Your task to perform on an android device: choose inbox layout in the gmail app Image 0: 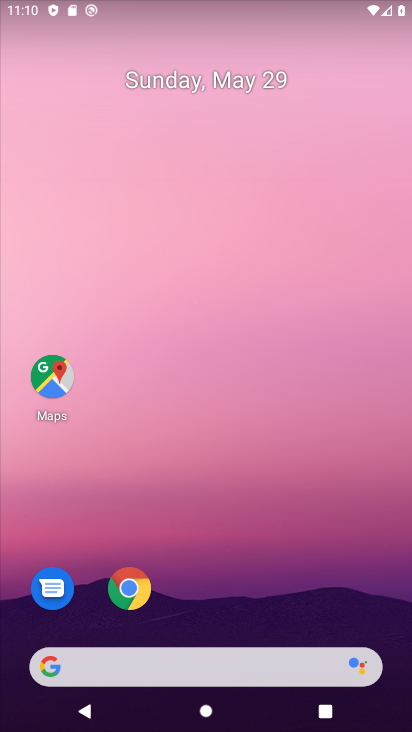
Step 0: drag from (311, 579) to (282, 70)
Your task to perform on an android device: choose inbox layout in the gmail app Image 1: 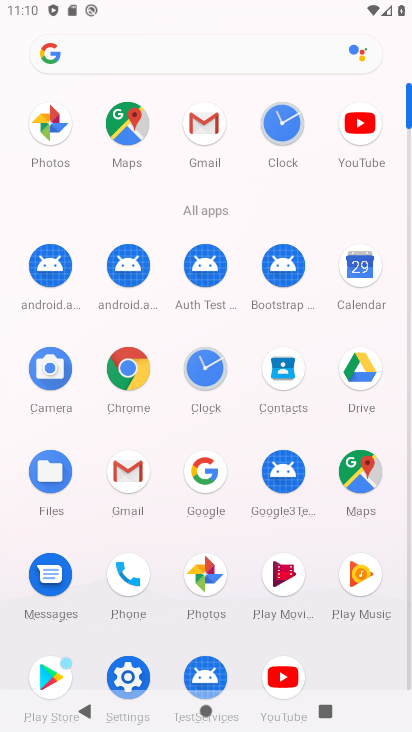
Step 1: click (202, 119)
Your task to perform on an android device: choose inbox layout in the gmail app Image 2: 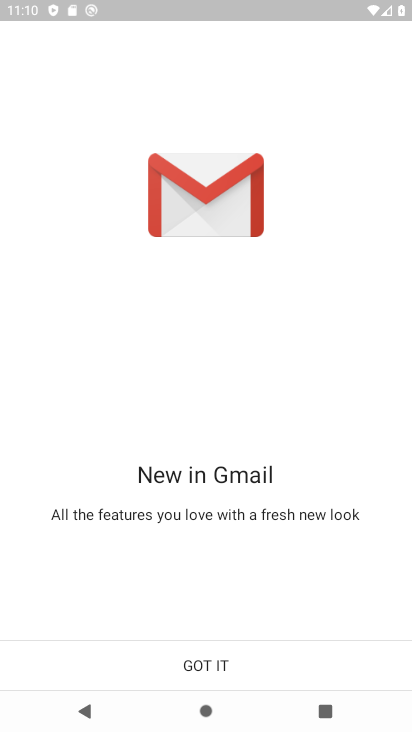
Step 2: click (194, 671)
Your task to perform on an android device: choose inbox layout in the gmail app Image 3: 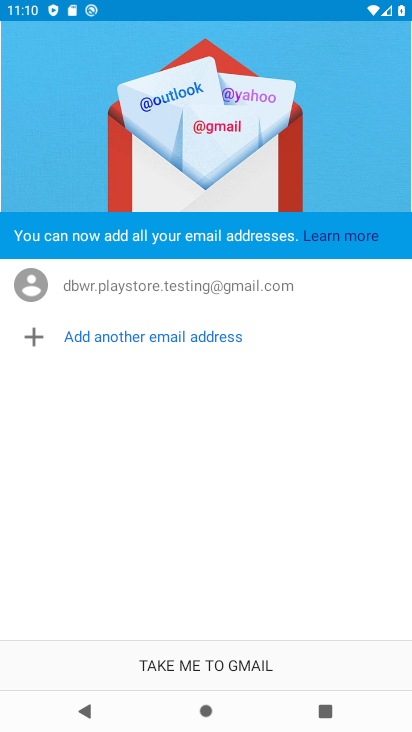
Step 3: click (199, 673)
Your task to perform on an android device: choose inbox layout in the gmail app Image 4: 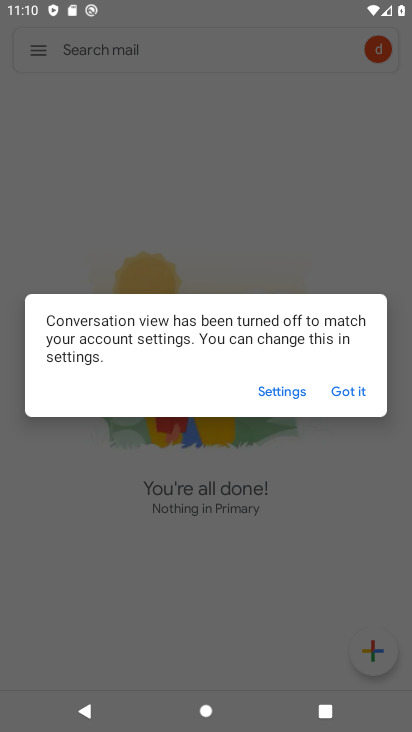
Step 4: click (351, 387)
Your task to perform on an android device: choose inbox layout in the gmail app Image 5: 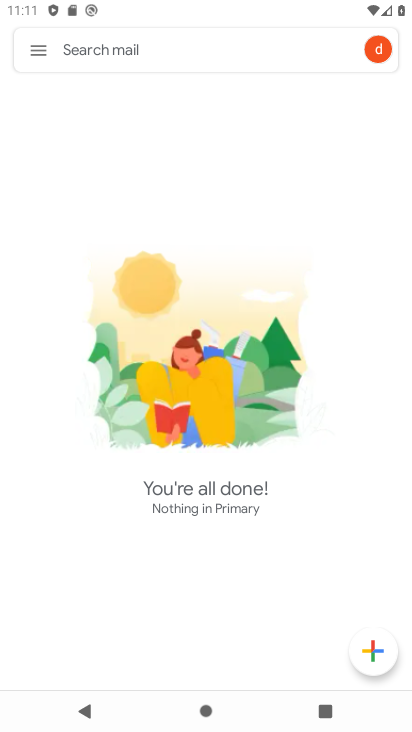
Step 5: click (42, 54)
Your task to perform on an android device: choose inbox layout in the gmail app Image 6: 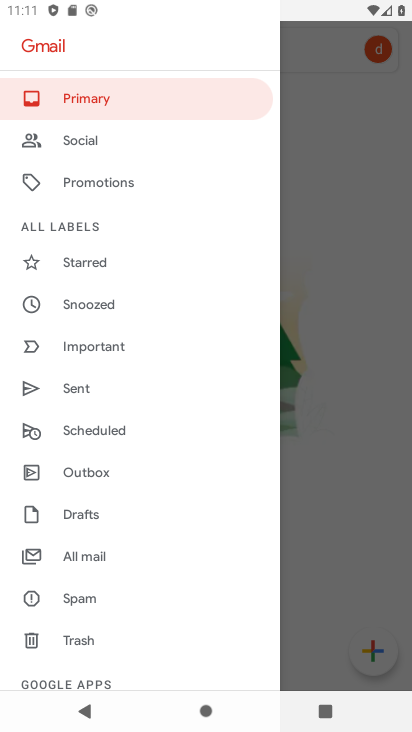
Step 6: drag from (141, 648) to (125, 186)
Your task to perform on an android device: choose inbox layout in the gmail app Image 7: 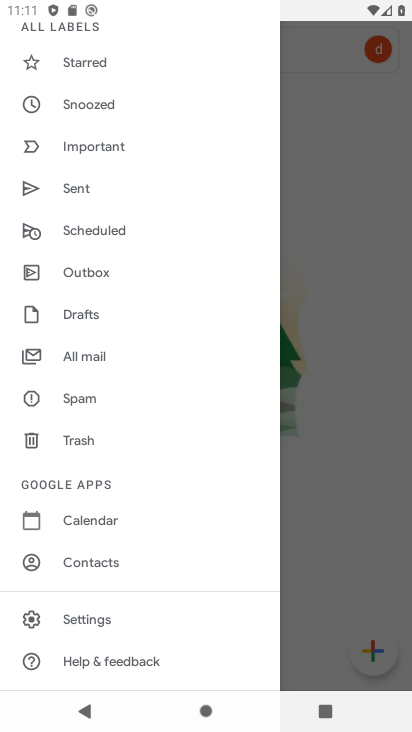
Step 7: click (87, 619)
Your task to perform on an android device: choose inbox layout in the gmail app Image 8: 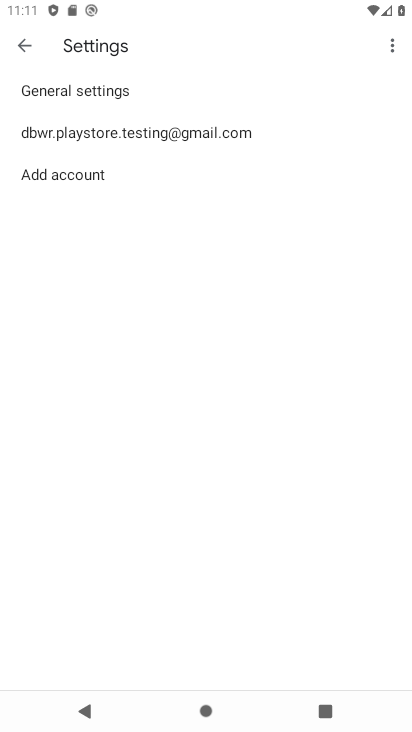
Step 8: click (44, 138)
Your task to perform on an android device: choose inbox layout in the gmail app Image 9: 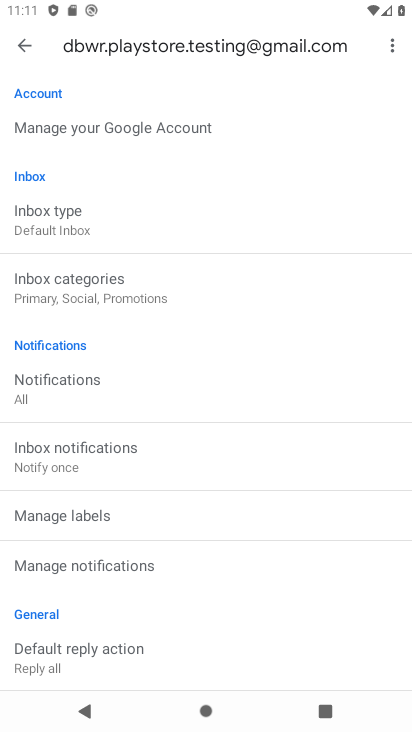
Step 9: click (83, 221)
Your task to perform on an android device: choose inbox layout in the gmail app Image 10: 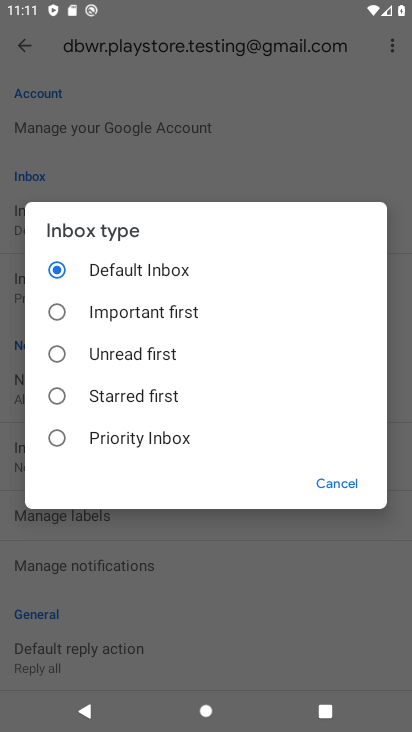
Step 10: click (67, 343)
Your task to perform on an android device: choose inbox layout in the gmail app Image 11: 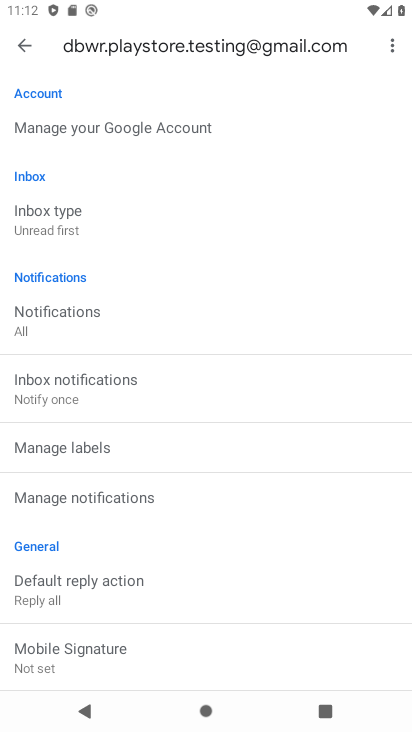
Step 11: task complete